Your task to perform on an android device: When is my next meeting? Image 0: 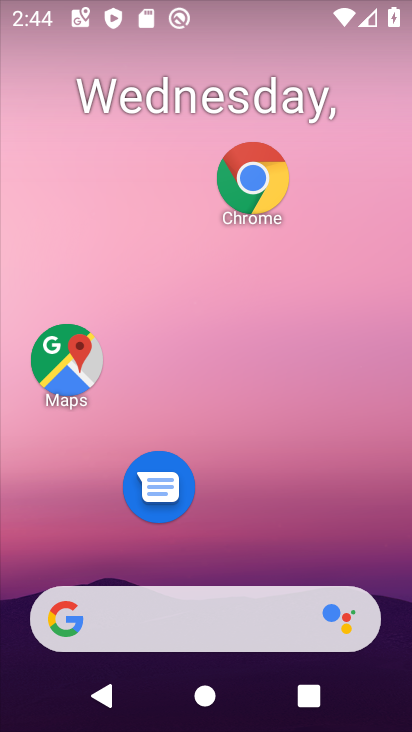
Step 0: drag from (291, 501) to (383, 77)
Your task to perform on an android device: When is my next meeting? Image 1: 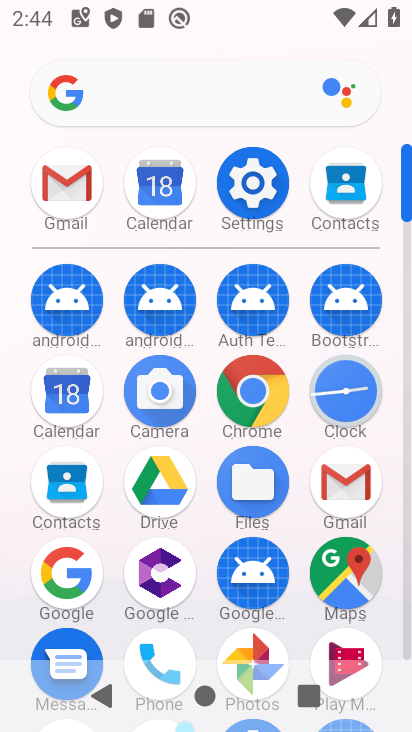
Step 1: click (158, 201)
Your task to perform on an android device: When is my next meeting? Image 2: 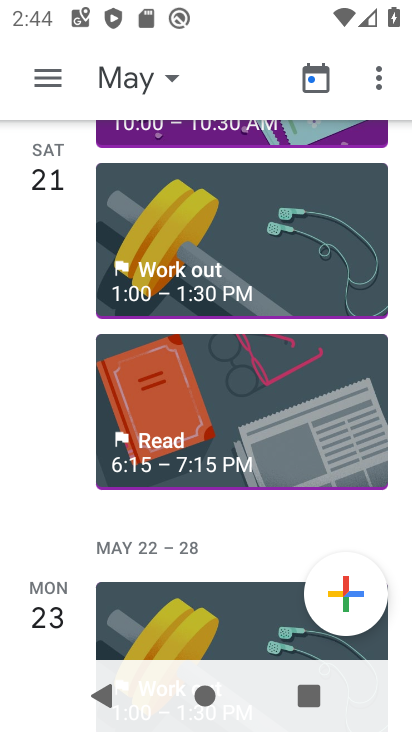
Step 2: click (135, 80)
Your task to perform on an android device: When is my next meeting? Image 3: 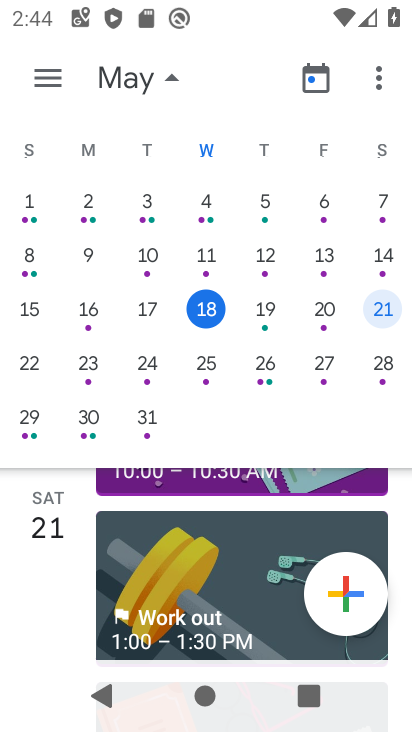
Step 3: click (218, 299)
Your task to perform on an android device: When is my next meeting? Image 4: 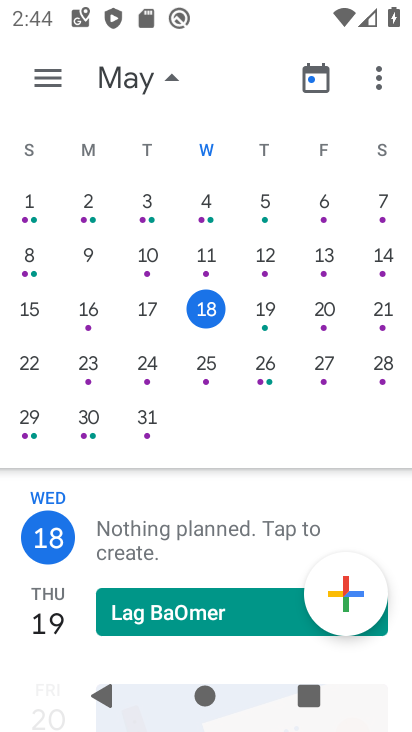
Step 4: task complete